Your task to perform on an android device: toggle data saver in the chrome app Image 0: 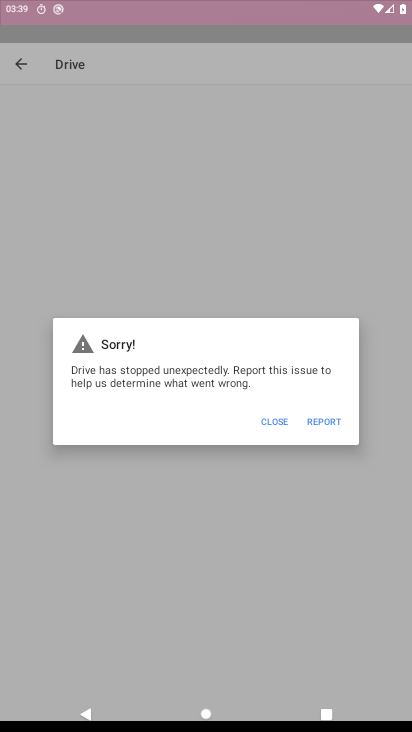
Step 0: press home button
Your task to perform on an android device: toggle data saver in the chrome app Image 1: 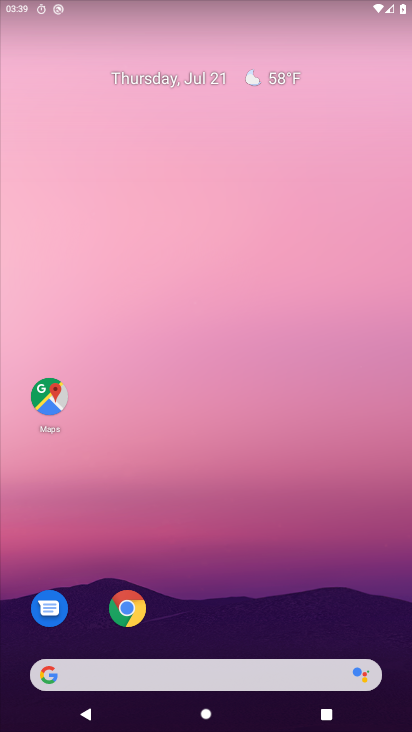
Step 1: click (128, 605)
Your task to perform on an android device: toggle data saver in the chrome app Image 2: 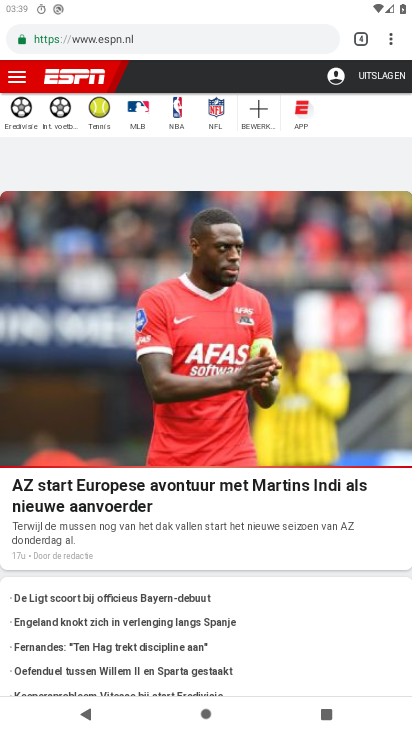
Step 2: click (389, 33)
Your task to perform on an android device: toggle data saver in the chrome app Image 3: 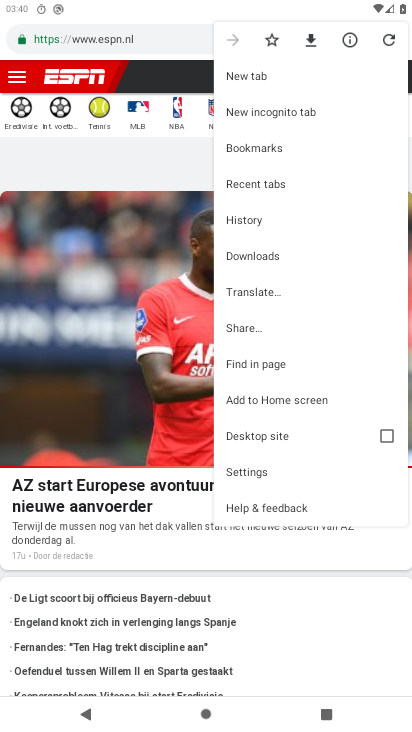
Step 3: click (291, 468)
Your task to perform on an android device: toggle data saver in the chrome app Image 4: 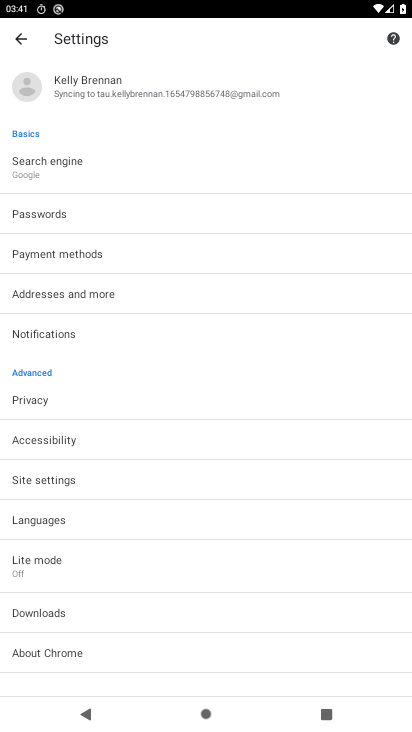
Step 4: click (79, 563)
Your task to perform on an android device: toggle data saver in the chrome app Image 5: 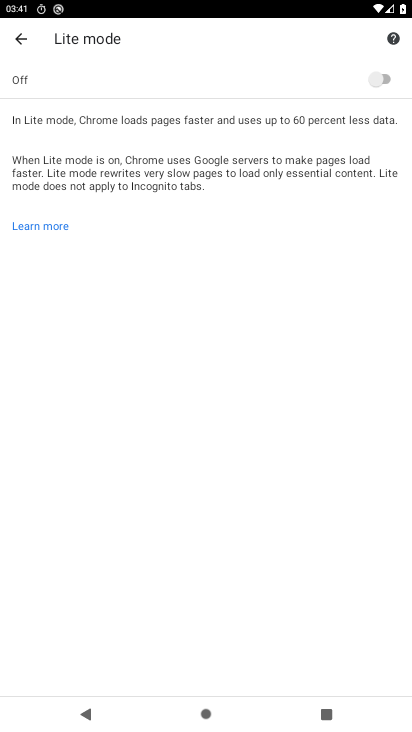
Step 5: click (379, 75)
Your task to perform on an android device: toggle data saver in the chrome app Image 6: 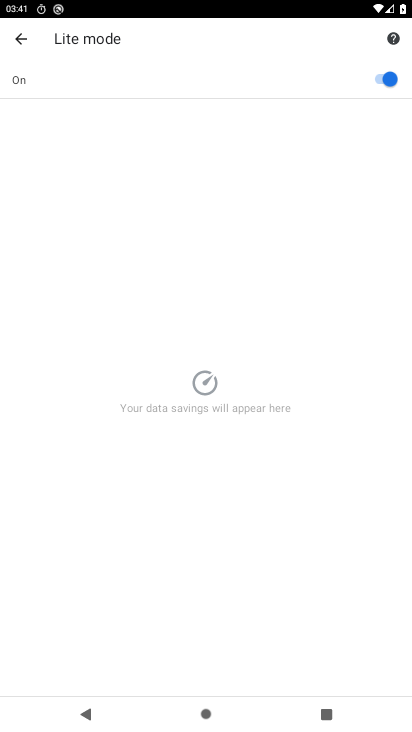
Step 6: task complete